Your task to perform on an android device: Show the shopping cart on ebay.com. Add "bose soundlink" to the cart on ebay.com, then select checkout. Image 0: 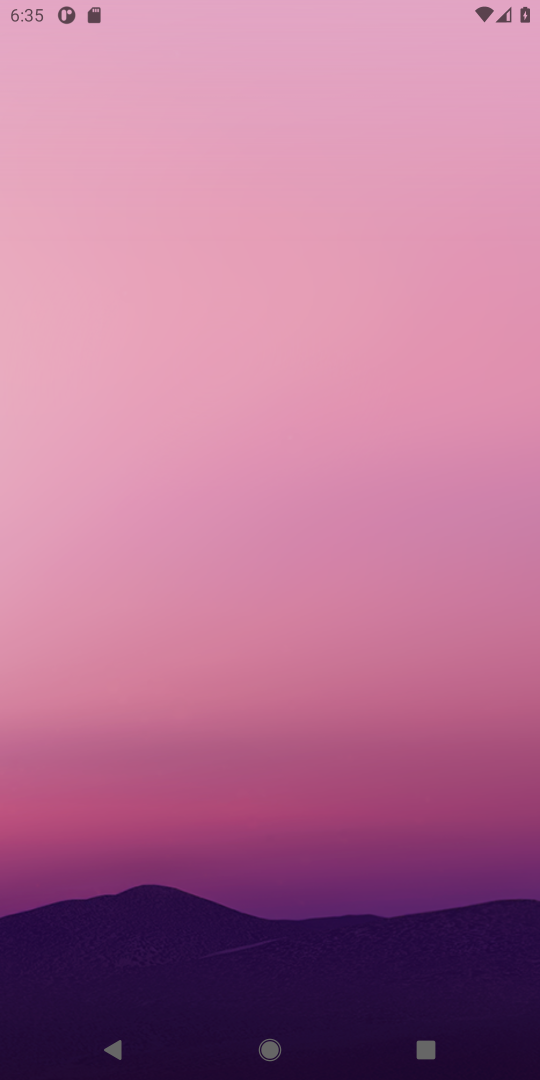
Step 0: click (363, 846)
Your task to perform on an android device: Show the shopping cart on ebay.com. Add "bose soundlink" to the cart on ebay.com, then select checkout. Image 1: 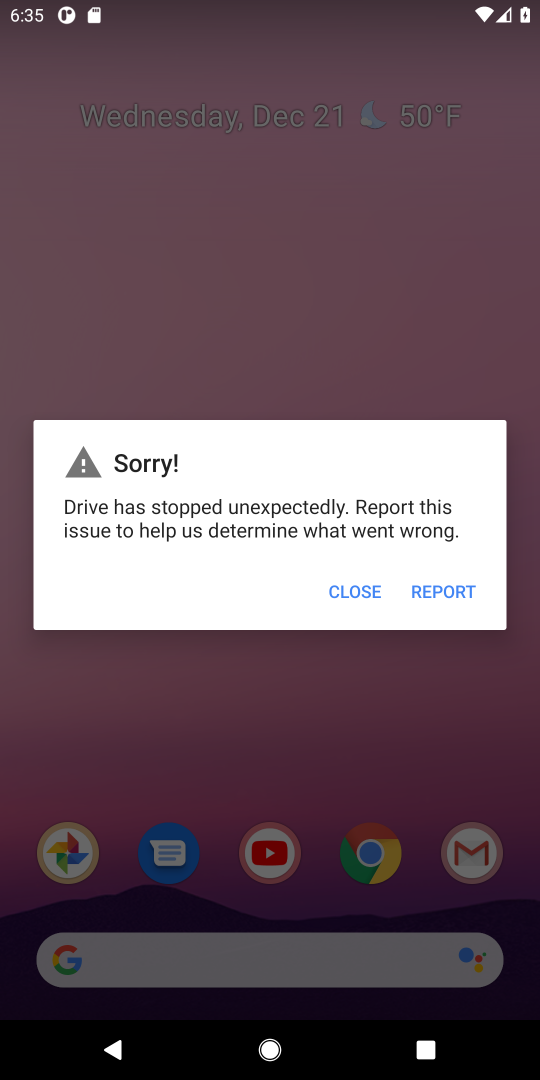
Step 1: click (353, 583)
Your task to perform on an android device: Show the shopping cart on ebay.com. Add "bose soundlink" to the cart on ebay.com, then select checkout. Image 2: 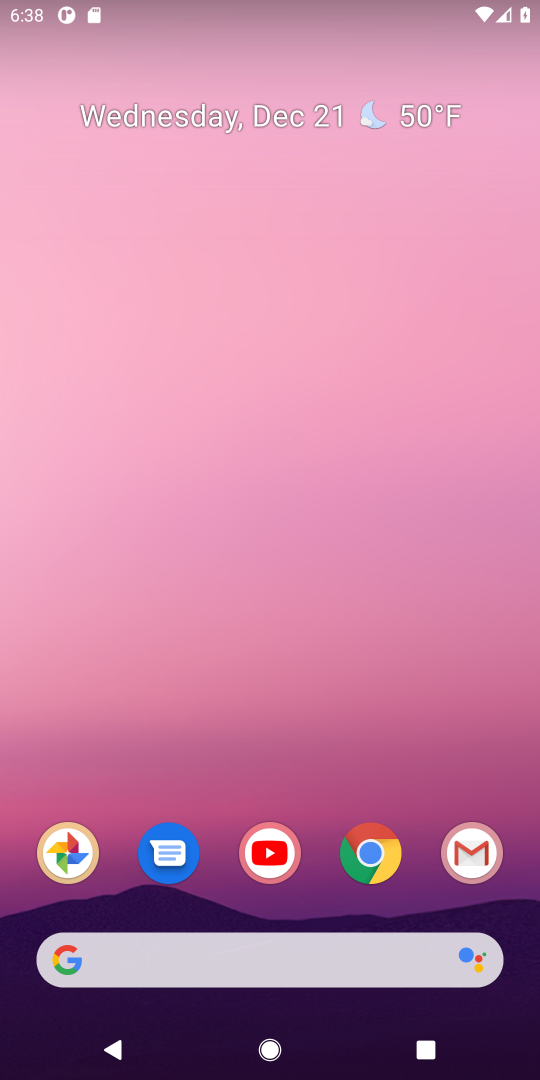
Step 2: click (365, 871)
Your task to perform on an android device: Show the shopping cart on ebay.com. Add "bose soundlink" to the cart on ebay.com, then select checkout. Image 3: 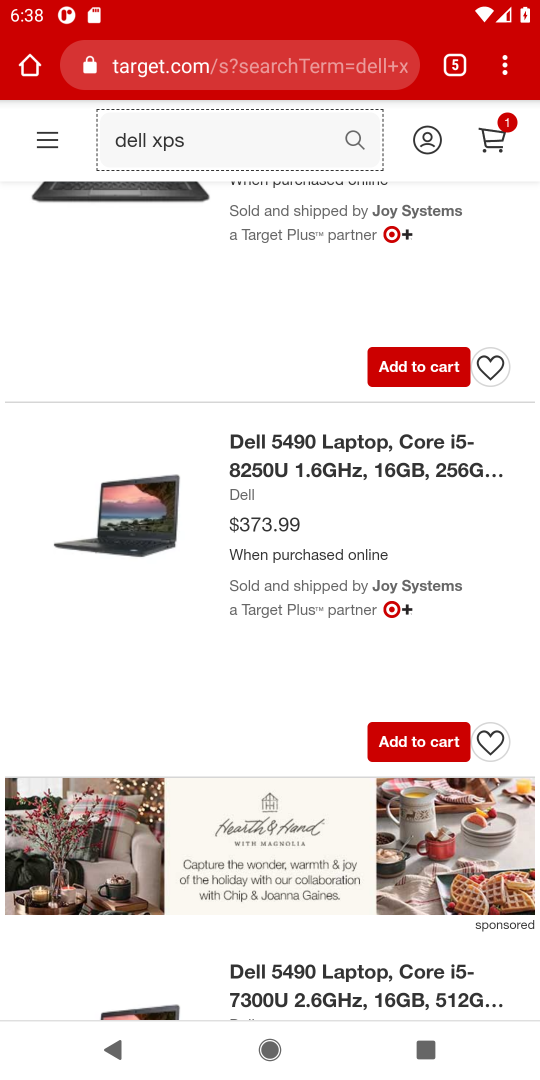
Step 3: click (453, 61)
Your task to perform on an android device: Show the shopping cart on ebay.com. Add "bose soundlink" to the cart on ebay.com, then select checkout. Image 4: 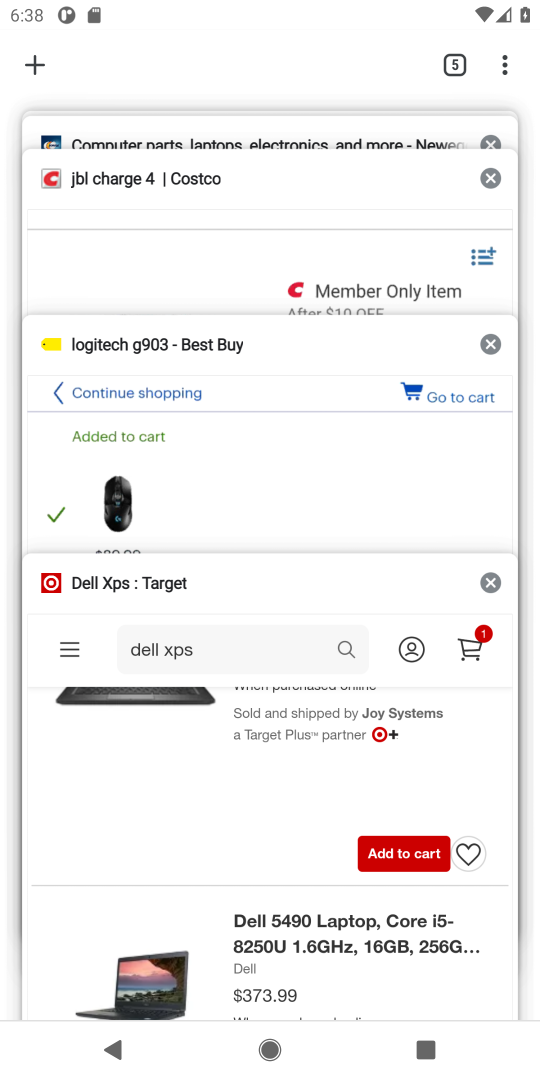
Step 4: drag from (224, 141) to (283, 411)
Your task to perform on an android device: Show the shopping cart on ebay.com. Add "bose soundlink" to the cart on ebay.com, then select checkout. Image 5: 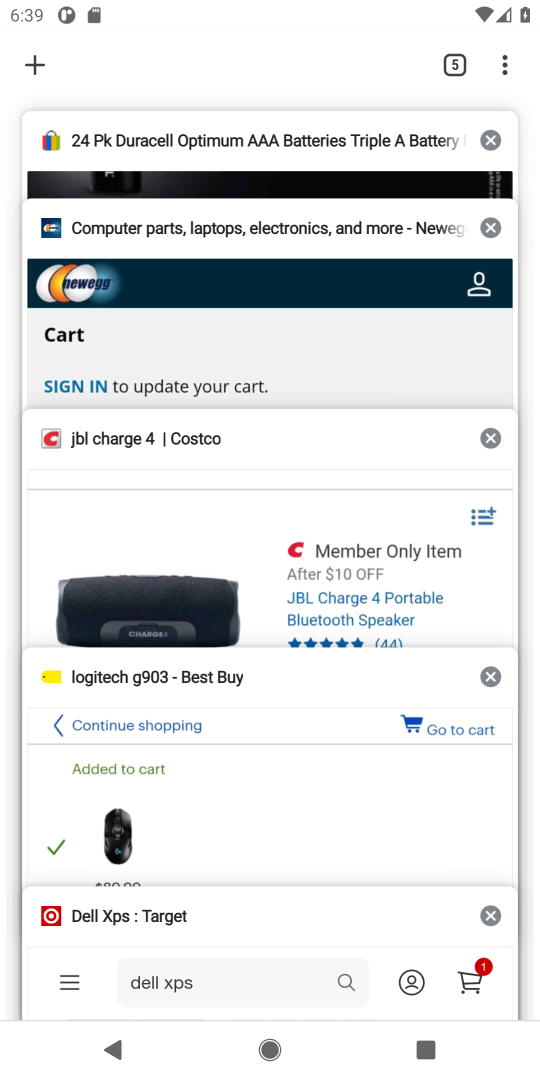
Step 5: click (246, 136)
Your task to perform on an android device: Show the shopping cart on ebay.com. Add "bose soundlink" to the cart on ebay.com, then select checkout. Image 6: 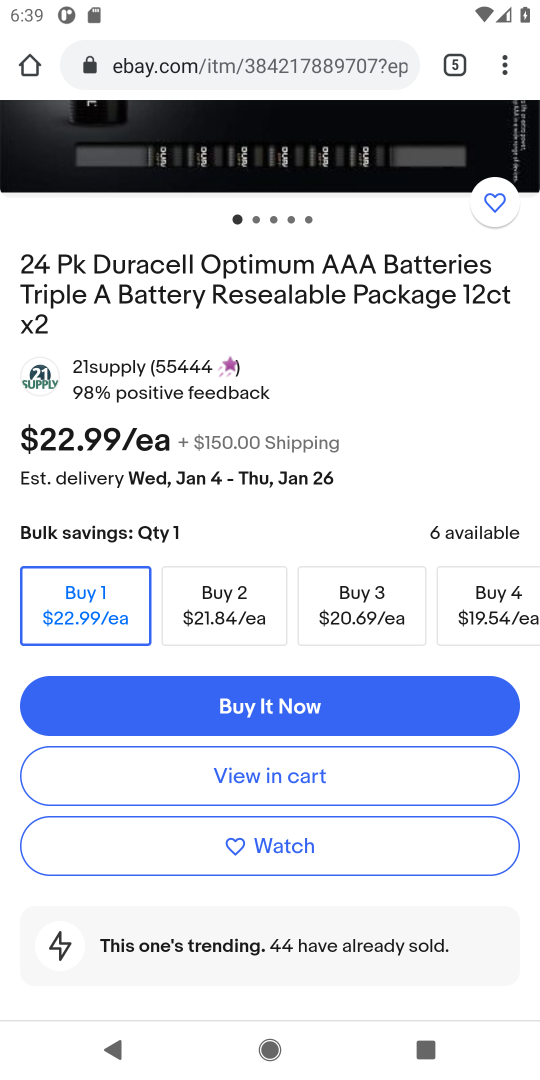
Step 6: drag from (407, 214) to (438, 770)
Your task to perform on an android device: Show the shopping cart on ebay.com. Add "bose soundlink" to the cart on ebay.com, then select checkout. Image 7: 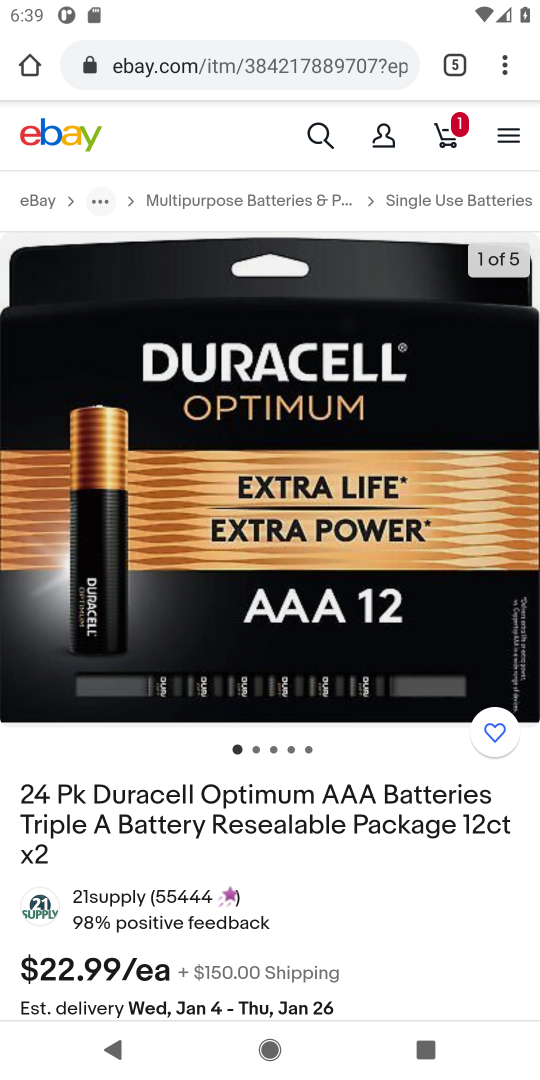
Step 7: click (321, 133)
Your task to perform on an android device: Show the shopping cart on ebay.com. Add "bose soundlink" to the cart on ebay.com, then select checkout. Image 8: 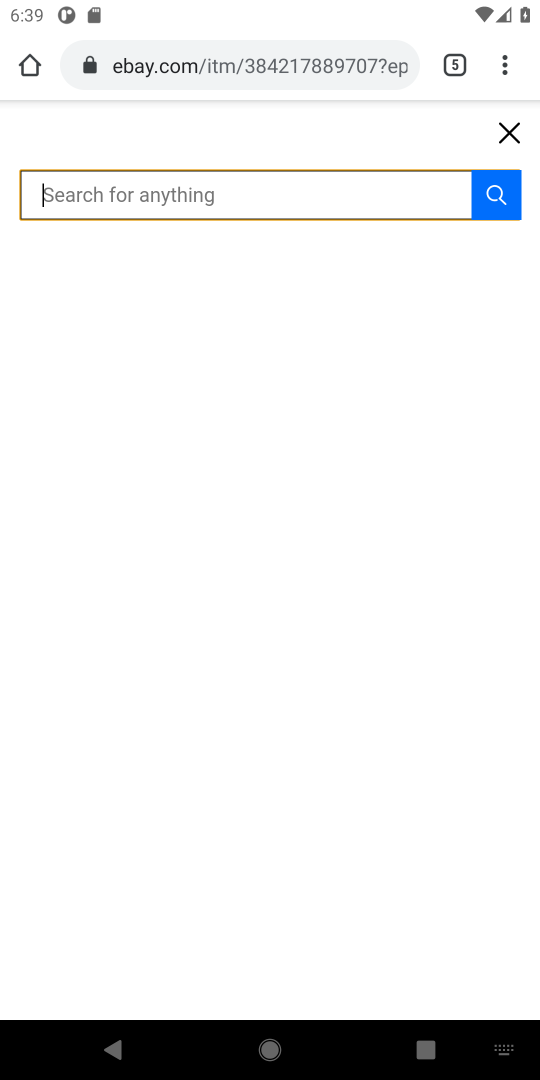
Step 8: type "bose soundlink"
Your task to perform on an android device: Show the shopping cart on ebay.com. Add "bose soundlink" to the cart on ebay.com, then select checkout. Image 9: 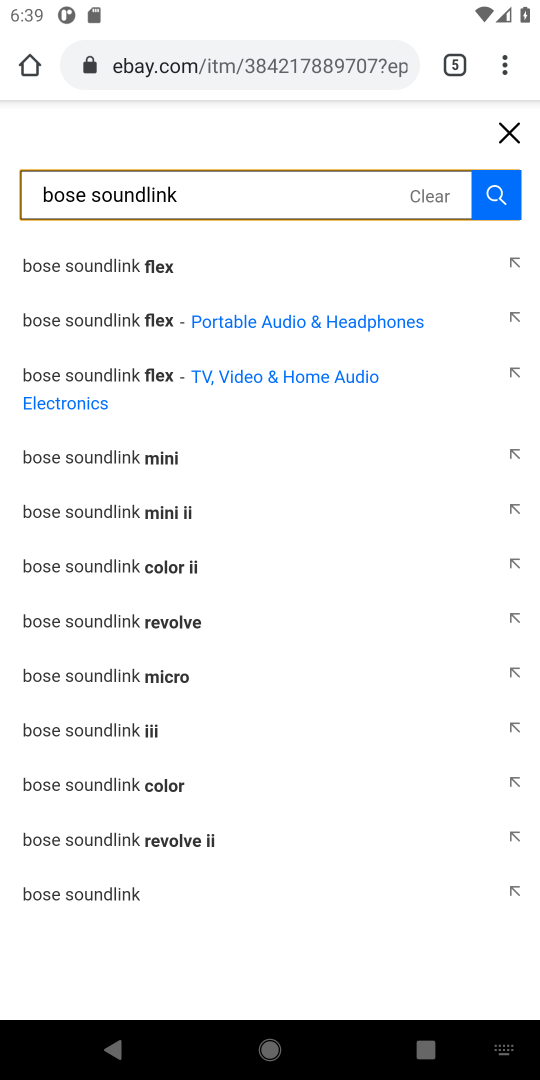
Step 9: click (101, 309)
Your task to perform on an android device: Show the shopping cart on ebay.com. Add "bose soundlink" to the cart on ebay.com, then select checkout. Image 10: 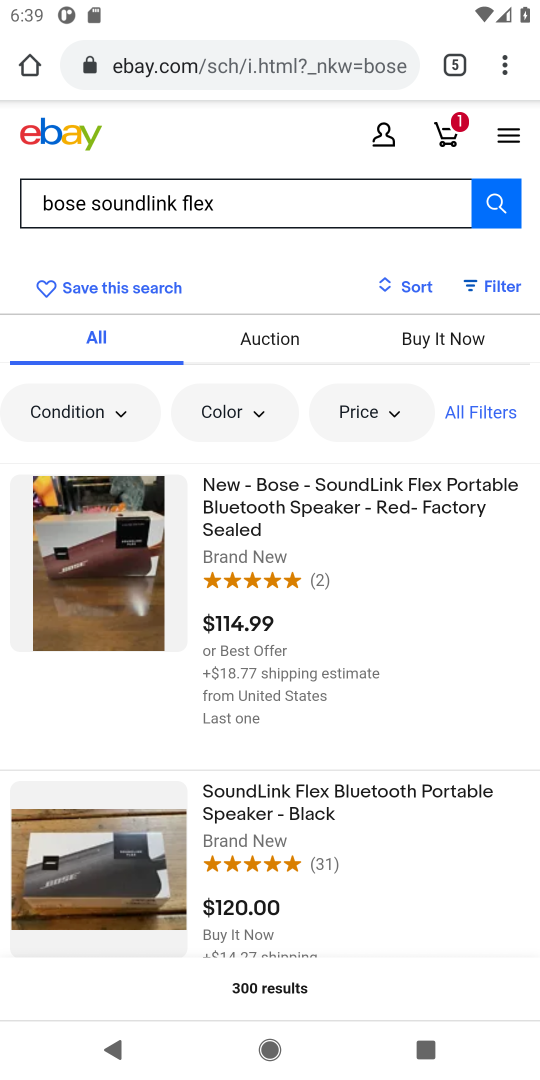
Step 10: click (344, 519)
Your task to perform on an android device: Show the shopping cart on ebay.com. Add "bose soundlink" to the cart on ebay.com, then select checkout. Image 11: 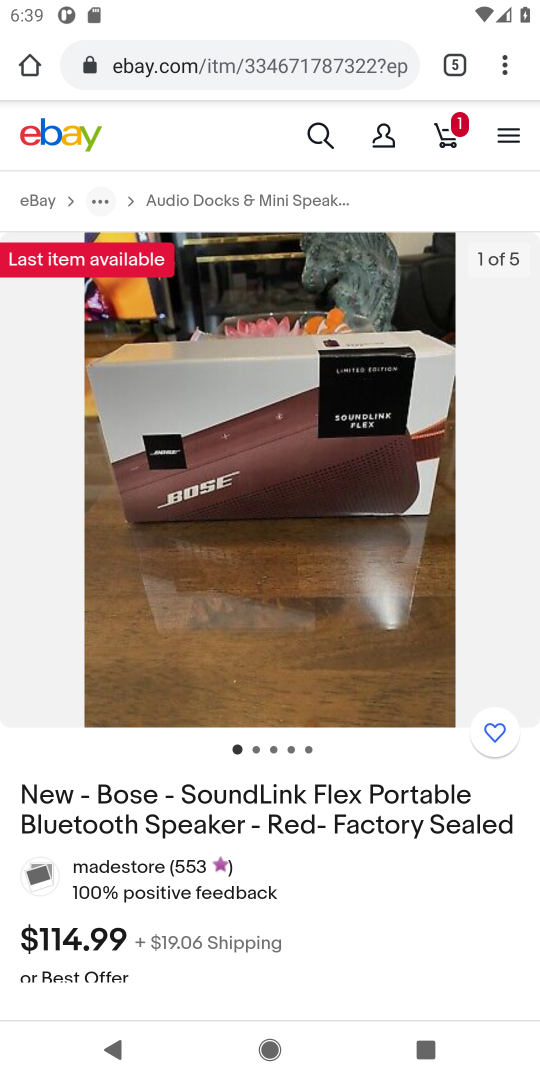
Step 11: drag from (281, 941) to (308, 534)
Your task to perform on an android device: Show the shopping cart on ebay.com. Add "bose soundlink" to the cart on ebay.com, then select checkout. Image 12: 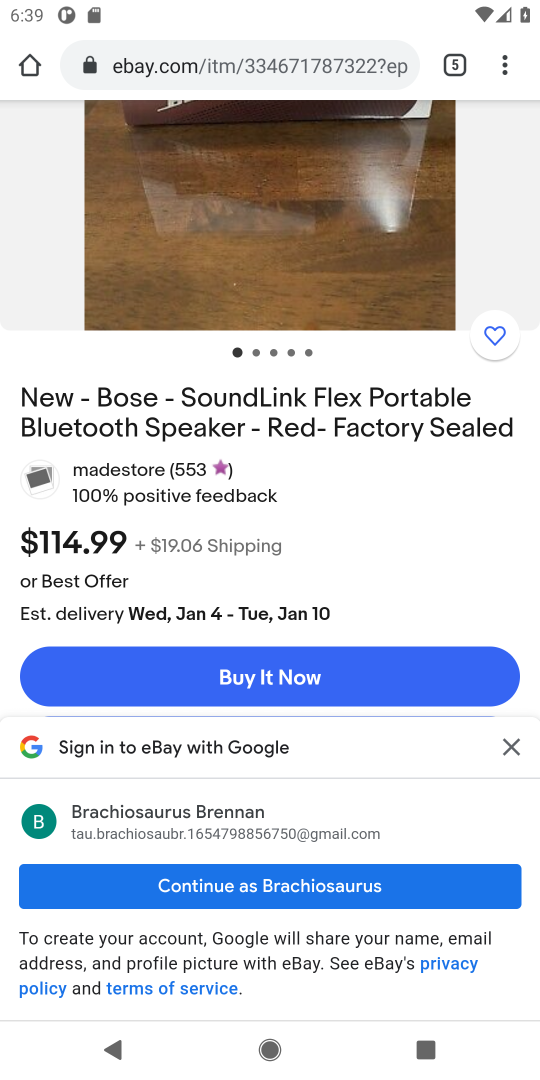
Step 12: click (515, 739)
Your task to perform on an android device: Show the shopping cart on ebay.com. Add "bose soundlink" to the cart on ebay.com, then select checkout. Image 13: 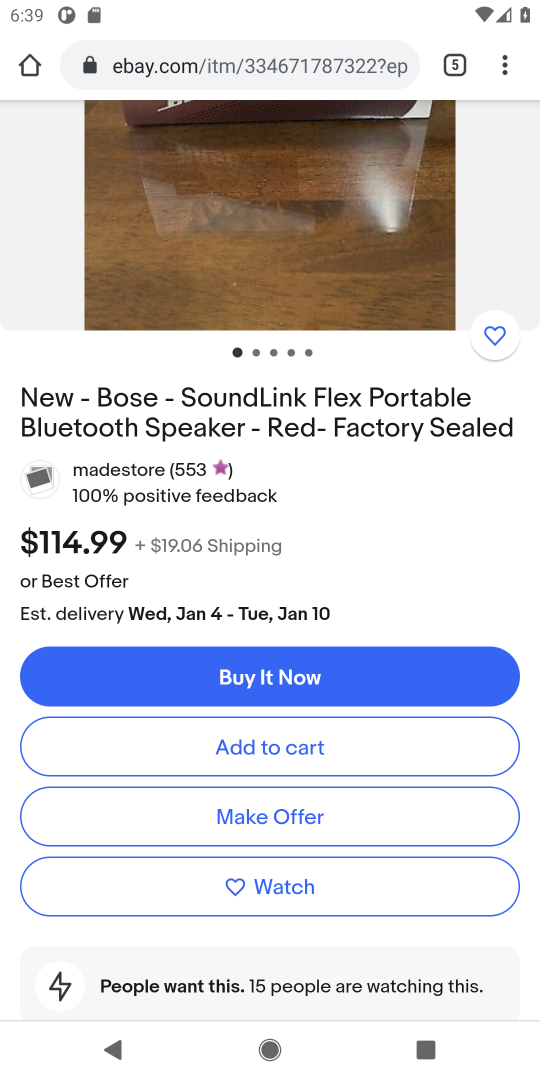
Step 13: click (254, 749)
Your task to perform on an android device: Show the shopping cart on ebay.com. Add "bose soundlink" to the cart on ebay.com, then select checkout. Image 14: 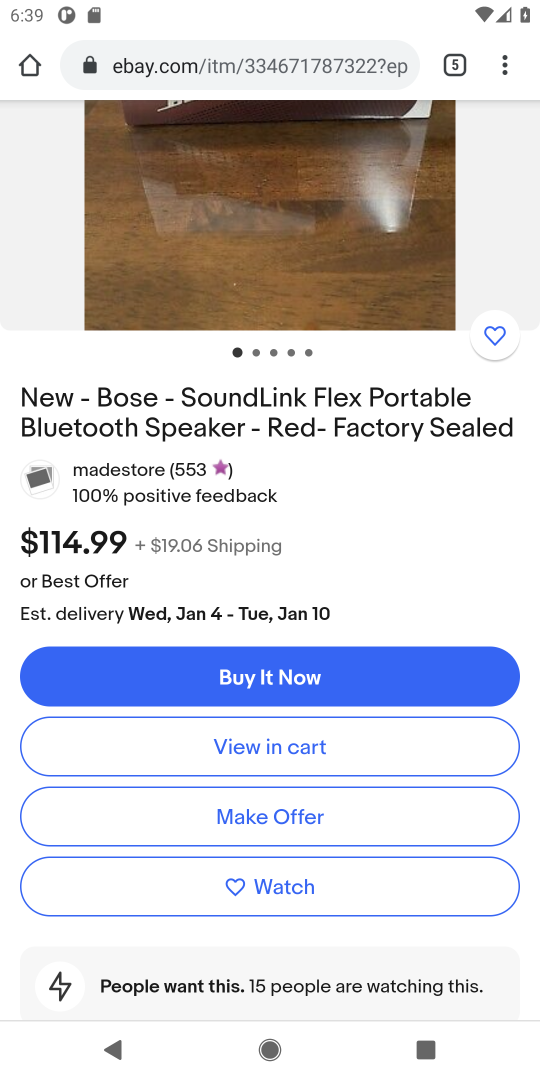
Step 14: task complete